Your task to perform on an android device: turn pop-ups on in chrome Image 0: 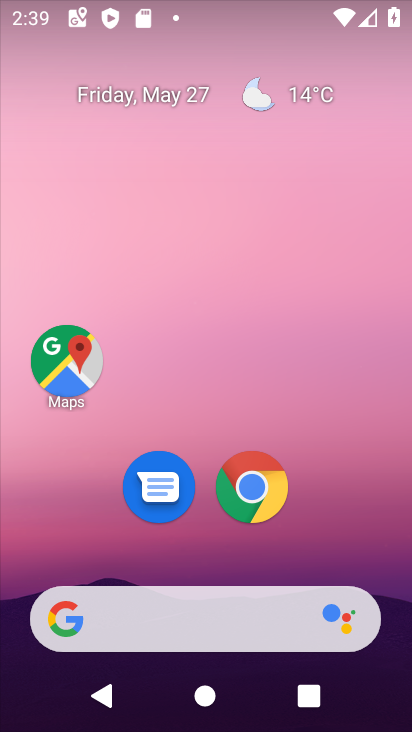
Step 0: click (266, 477)
Your task to perform on an android device: turn pop-ups on in chrome Image 1: 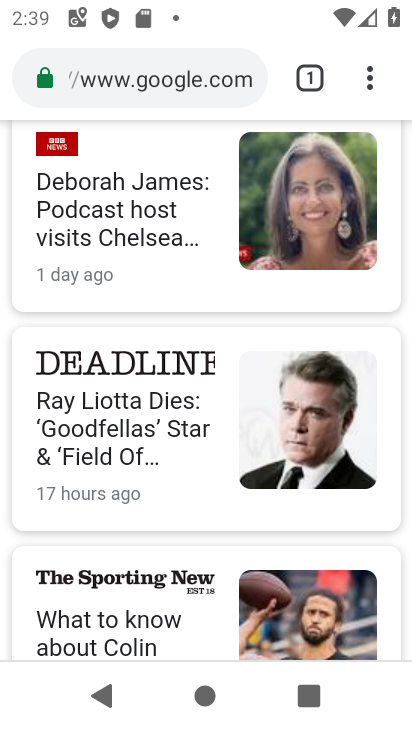
Step 1: drag from (378, 74) to (127, 556)
Your task to perform on an android device: turn pop-ups on in chrome Image 2: 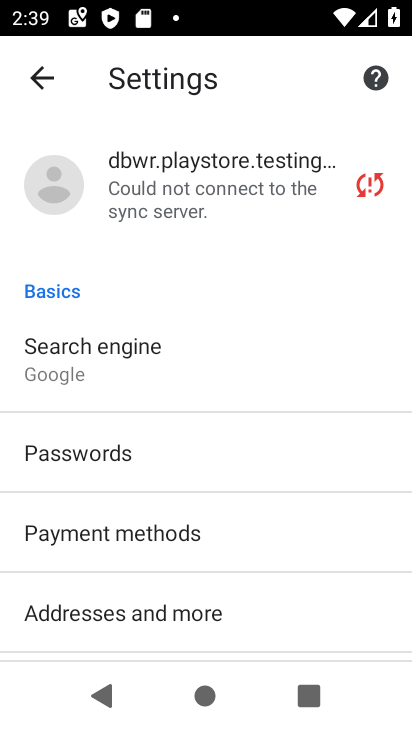
Step 2: drag from (309, 612) to (346, 199)
Your task to perform on an android device: turn pop-ups on in chrome Image 3: 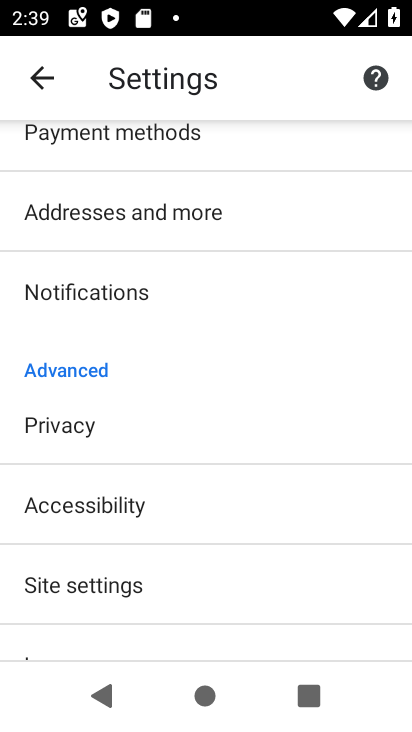
Step 3: click (129, 579)
Your task to perform on an android device: turn pop-ups on in chrome Image 4: 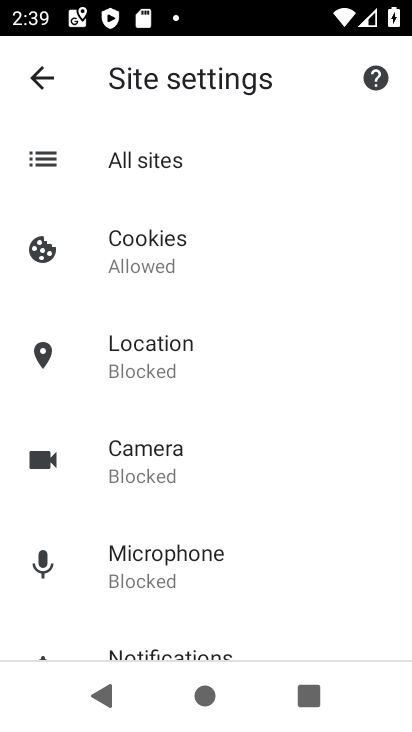
Step 4: drag from (278, 555) to (370, 0)
Your task to perform on an android device: turn pop-ups on in chrome Image 5: 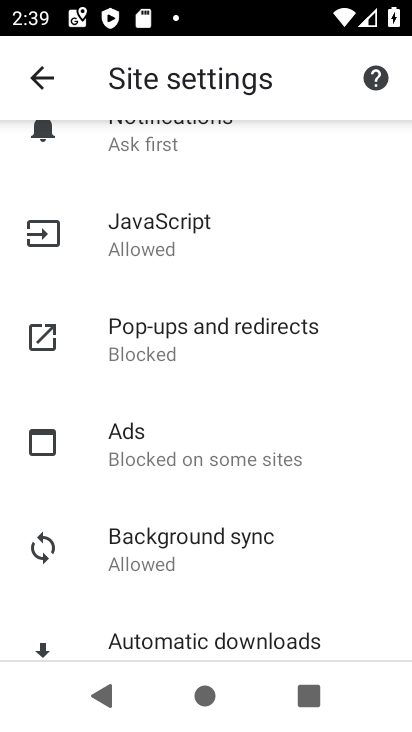
Step 5: click (169, 232)
Your task to perform on an android device: turn pop-ups on in chrome Image 6: 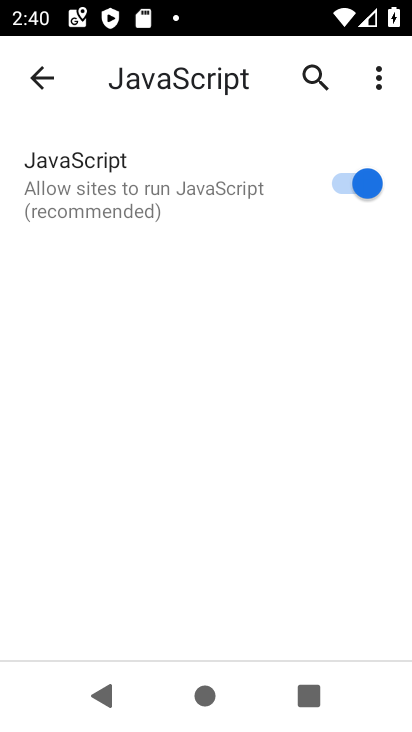
Step 6: task complete